Your task to perform on an android device: Set the phone to "Do not disturb". Image 0: 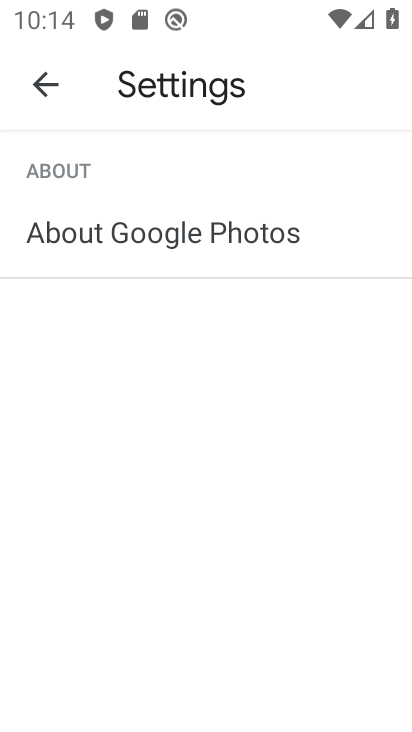
Step 0: drag from (215, 585) to (210, 73)
Your task to perform on an android device: Set the phone to "Do not disturb". Image 1: 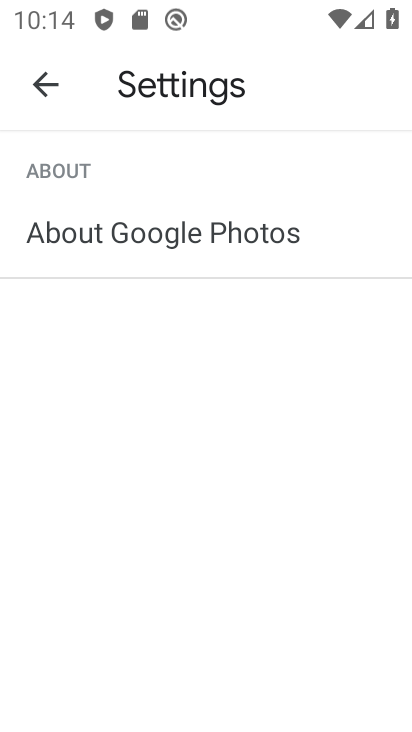
Step 1: press home button
Your task to perform on an android device: Set the phone to "Do not disturb". Image 2: 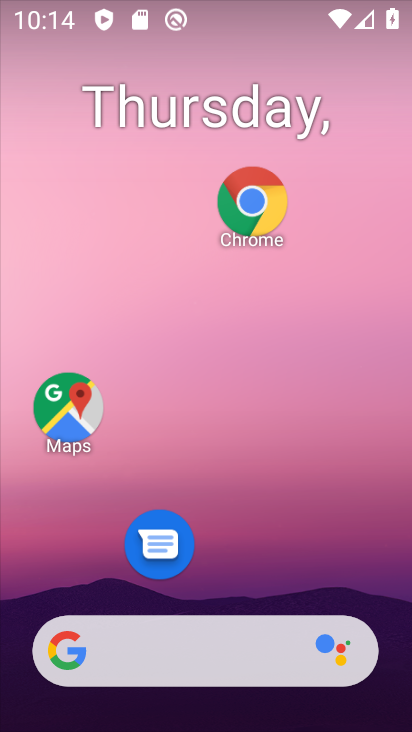
Step 2: drag from (221, 393) to (243, 36)
Your task to perform on an android device: Set the phone to "Do not disturb". Image 3: 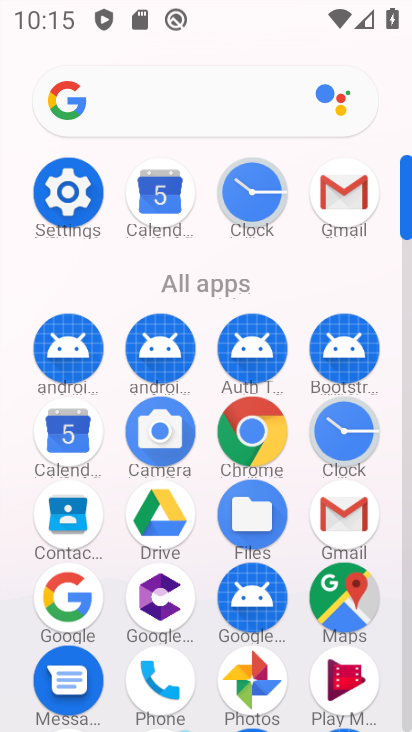
Step 3: drag from (246, 11) to (249, 663)
Your task to perform on an android device: Set the phone to "Do not disturb". Image 4: 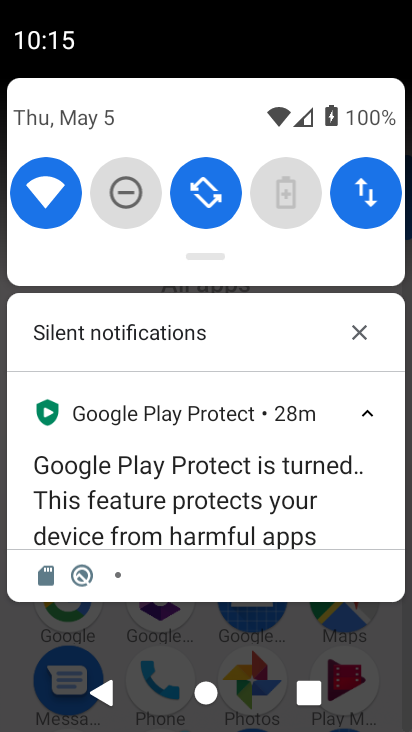
Step 4: click (128, 196)
Your task to perform on an android device: Set the phone to "Do not disturb". Image 5: 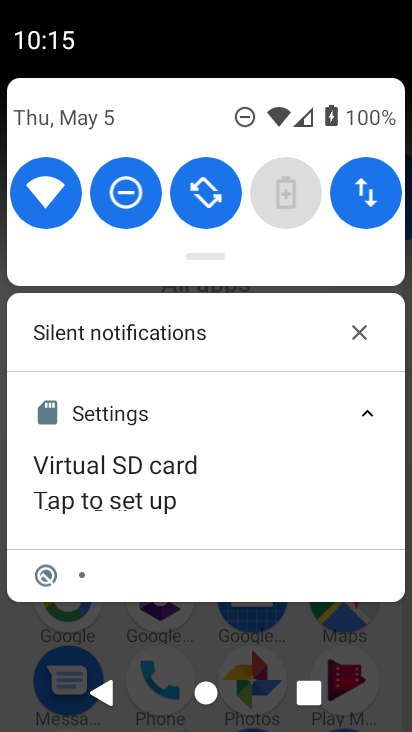
Step 5: task complete